Your task to perform on an android device: install app "Yahoo Mail" Image 0: 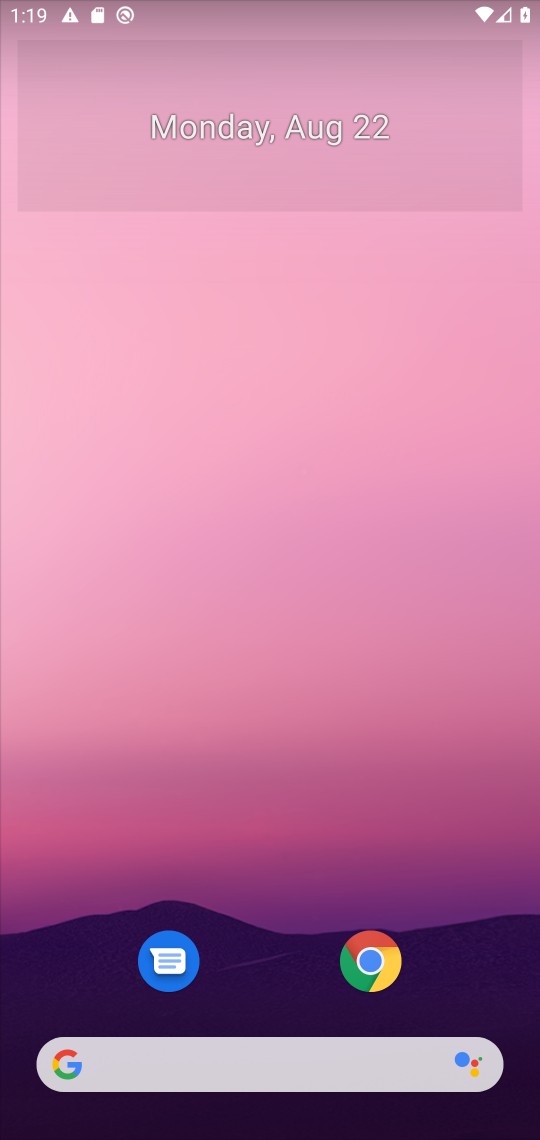
Step 0: press back button
Your task to perform on an android device: install app "Yahoo Mail" Image 1: 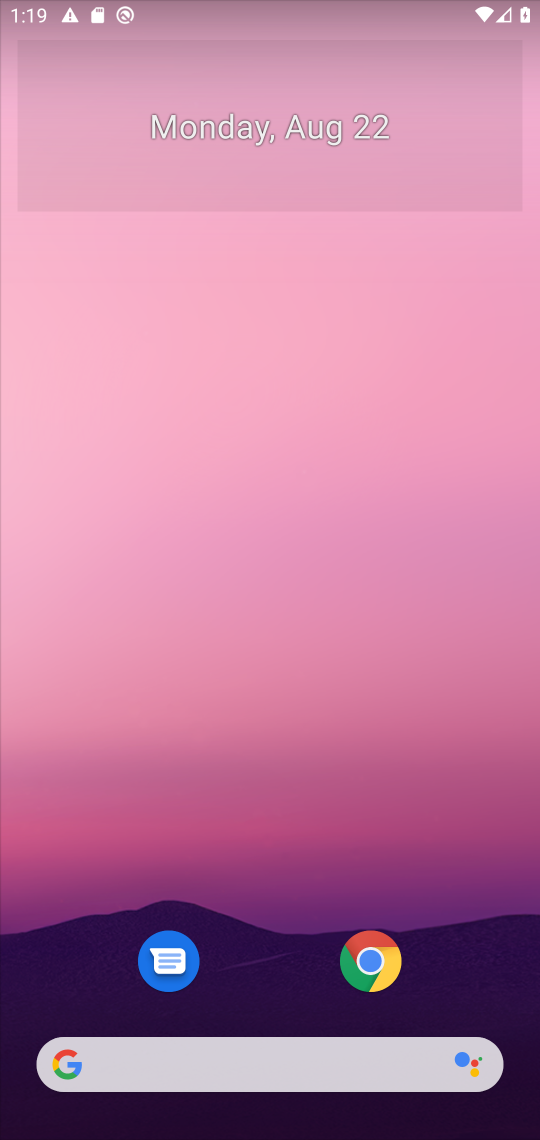
Step 1: press home button
Your task to perform on an android device: install app "Yahoo Mail" Image 2: 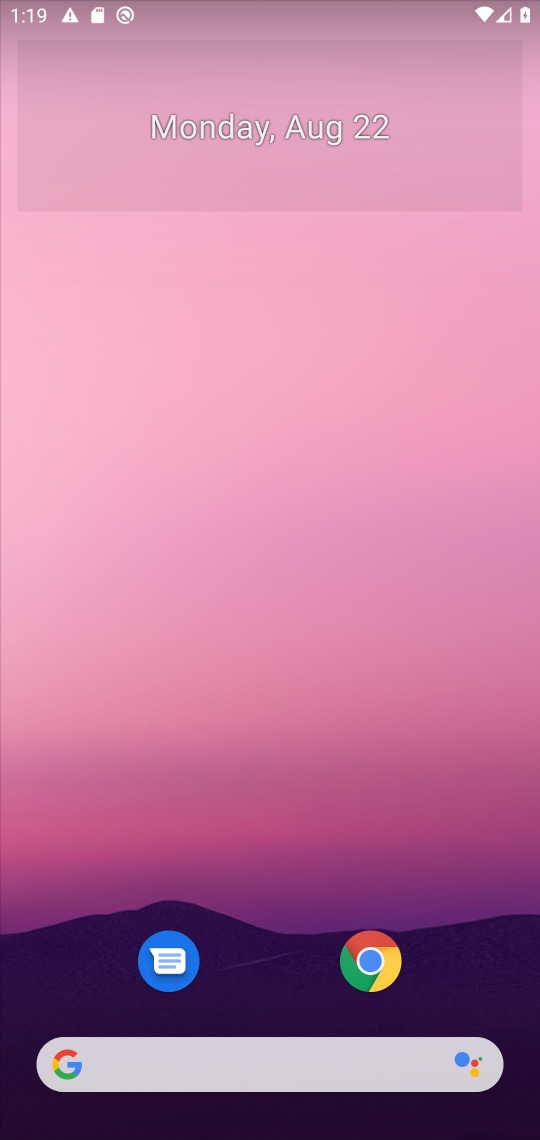
Step 2: drag from (469, 981) to (534, 482)
Your task to perform on an android device: install app "Yahoo Mail" Image 3: 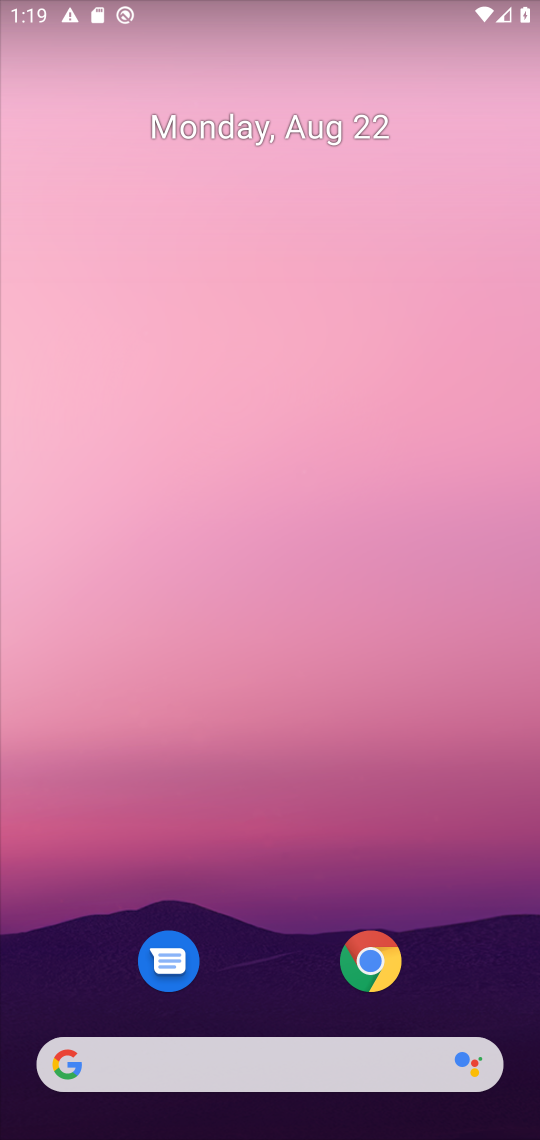
Step 3: drag from (502, 909) to (468, 86)
Your task to perform on an android device: install app "Yahoo Mail" Image 4: 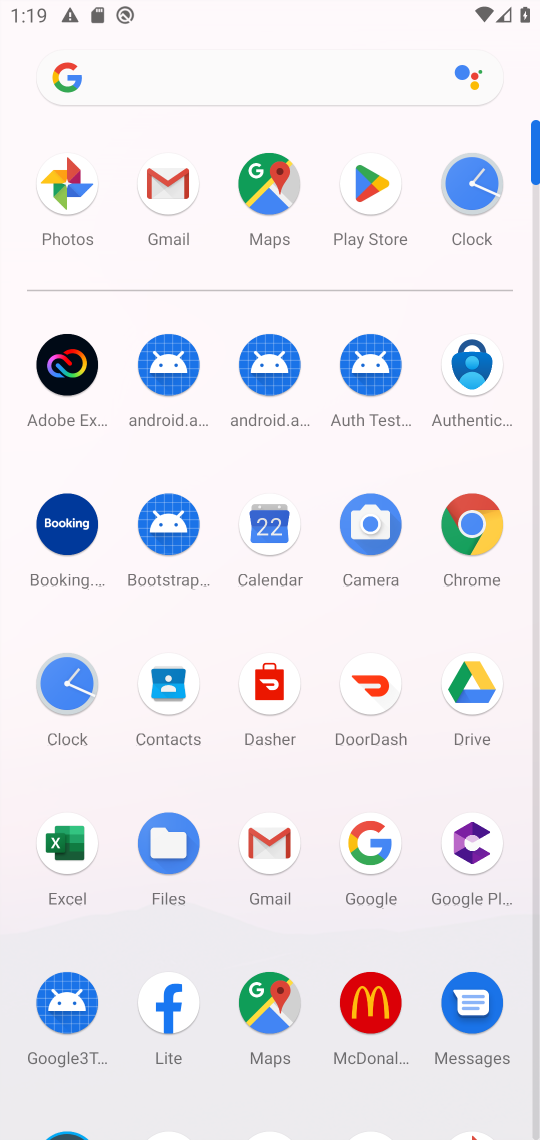
Step 4: click (378, 178)
Your task to perform on an android device: install app "Yahoo Mail" Image 5: 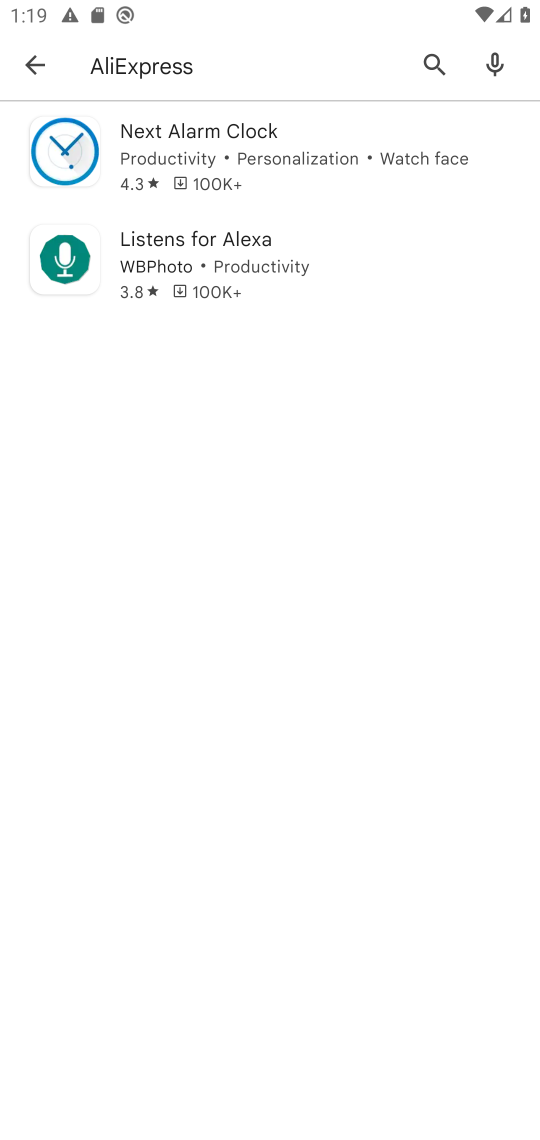
Step 5: press back button
Your task to perform on an android device: install app "Yahoo Mail" Image 6: 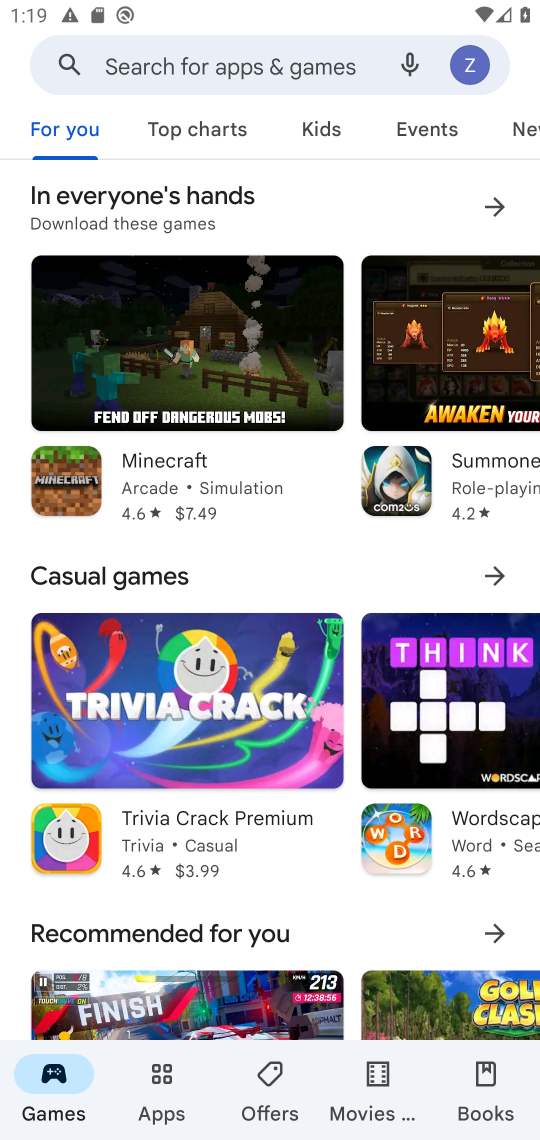
Step 6: click (320, 56)
Your task to perform on an android device: install app "Yahoo Mail" Image 7: 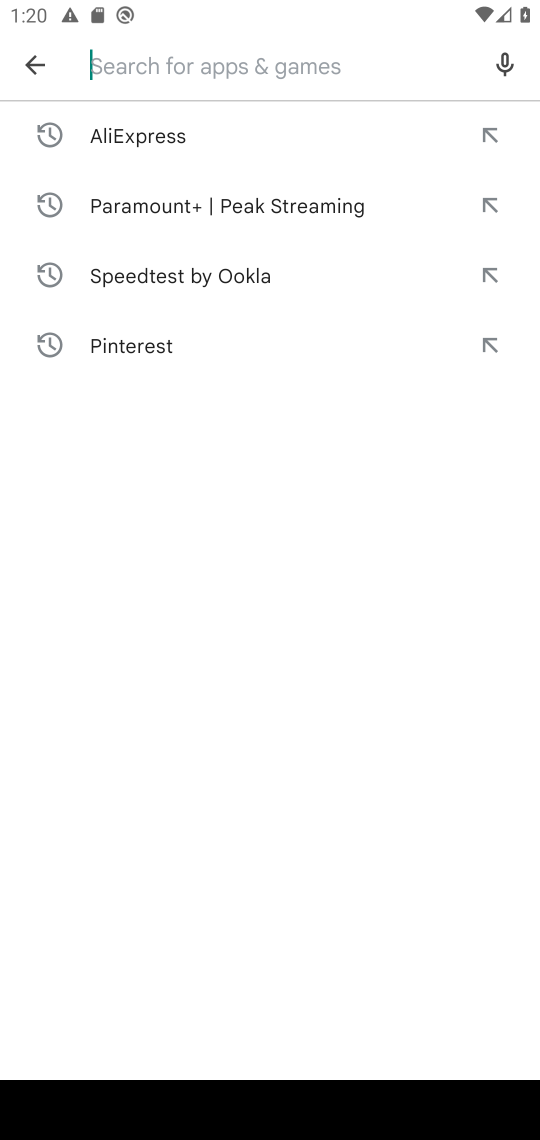
Step 7: type "yahoo mail"
Your task to perform on an android device: install app "Yahoo Mail" Image 8: 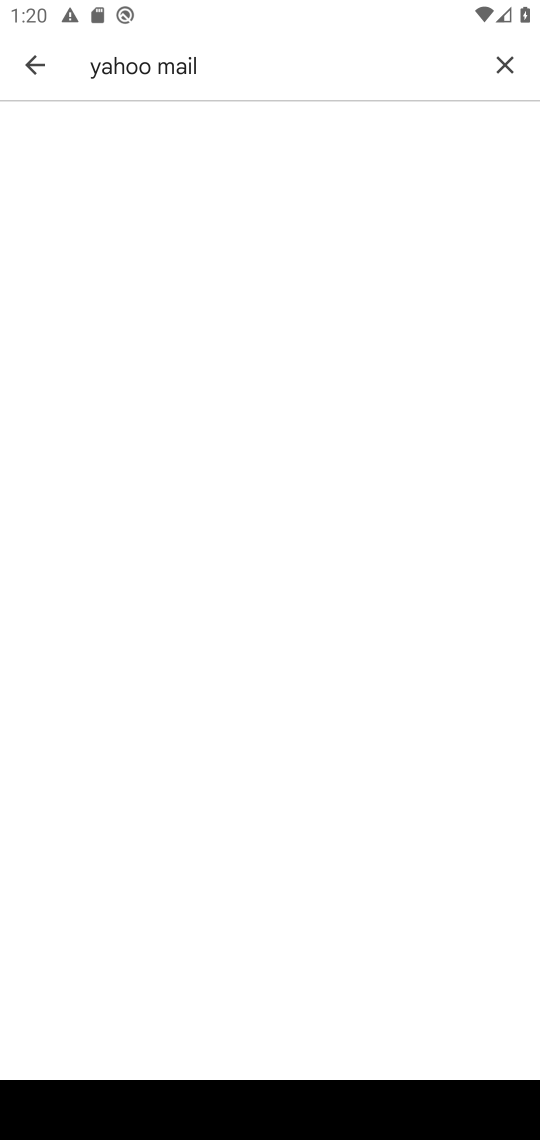
Step 8: task complete